Your task to perform on an android device: Open calendar and show me the first week of next month Image 0: 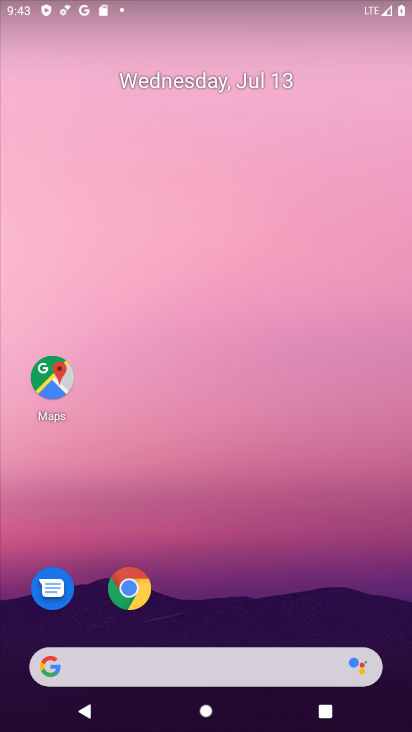
Step 0: drag from (244, 541) to (283, 34)
Your task to perform on an android device: Open calendar and show me the first week of next month Image 1: 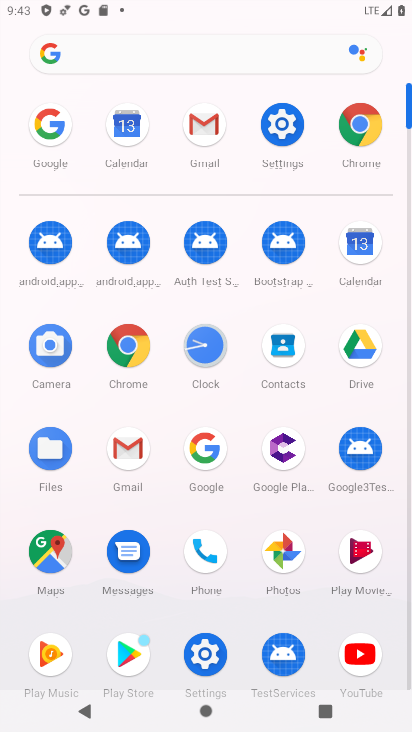
Step 1: click (358, 249)
Your task to perform on an android device: Open calendar and show me the first week of next month Image 2: 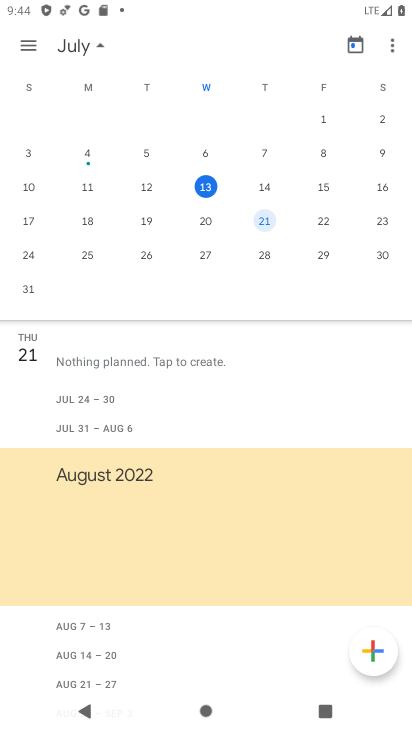
Step 2: drag from (369, 303) to (8, 268)
Your task to perform on an android device: Open calendar and show me the first week of next month Image 3: 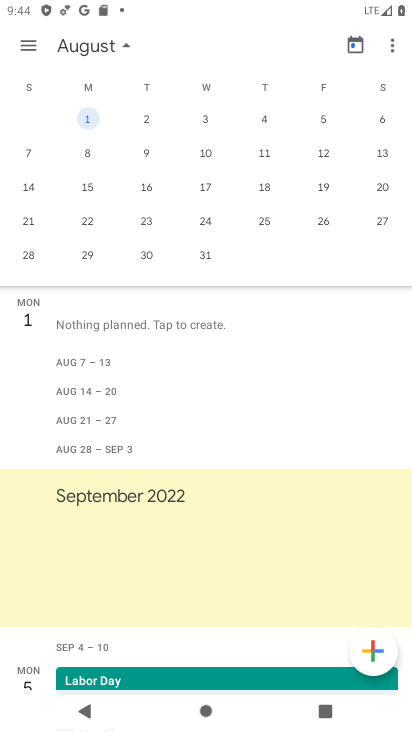
Step 3: click (273, 108)
Your task to perform on an android device: Open calendar and show me the first week of next month Image 4: 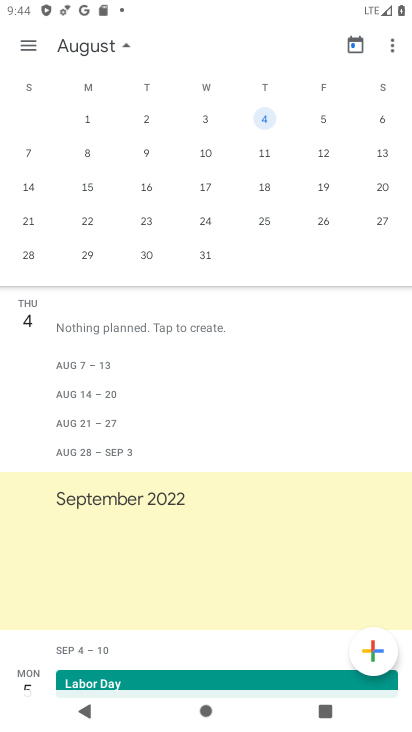
Step 4: task complete